Your task to perform on an android device: add a contact Image 0: 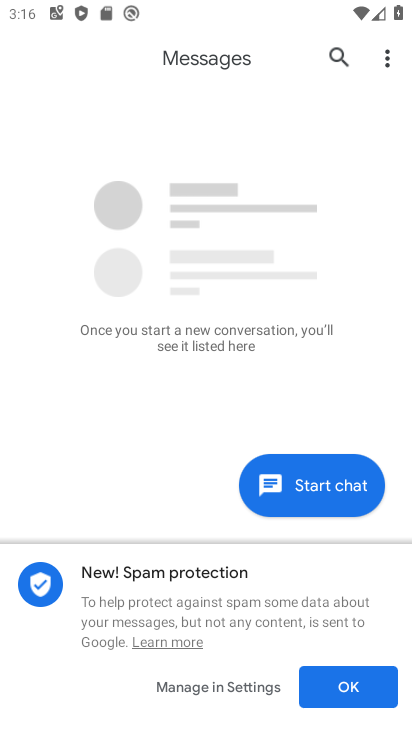
Step 0: press home button
Your task to perform on an android device: add a contact Image 1: 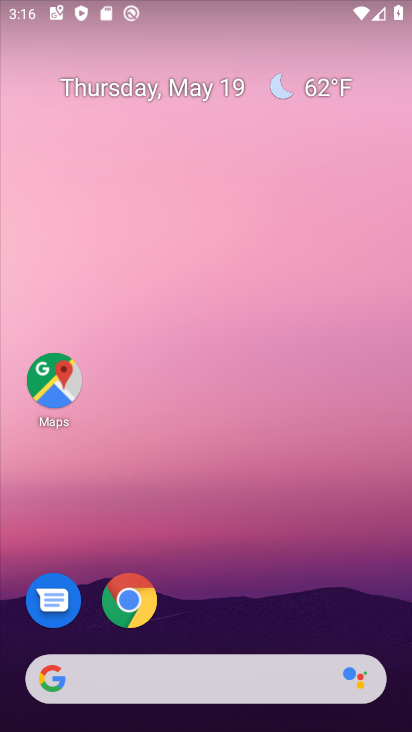
Step 1: drag from (71, 479) to (223, 128)
Your task to perform on an android device: add a contact Image 2: 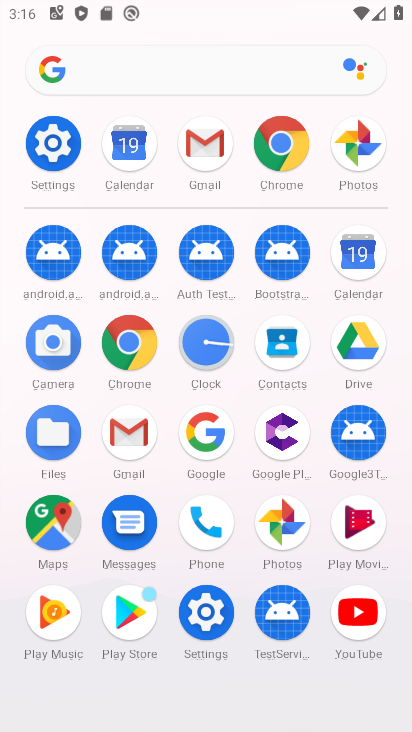
Step 2: click (209, 524)
Your task to perform on an android device: add a contact Image 3: 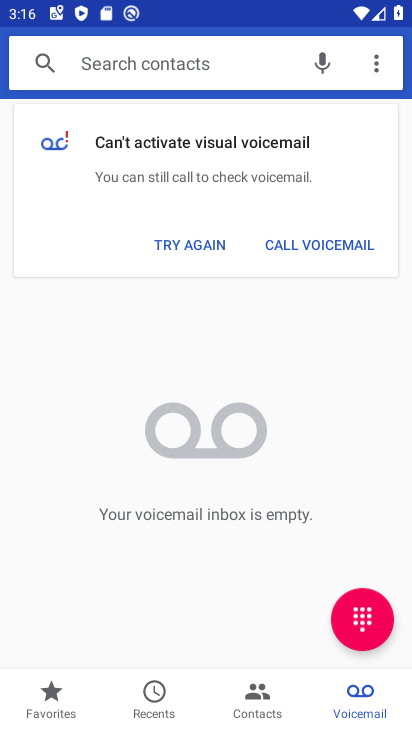
Step 3: click (245, 704)
Your task to perform on an android device: add a contact Image 4: 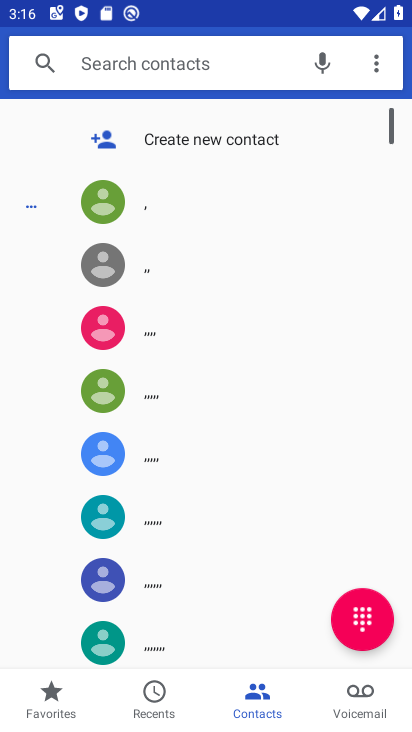
Step 4: click (163, 127)
Your task to perform on an android device: add a contact Image 5: 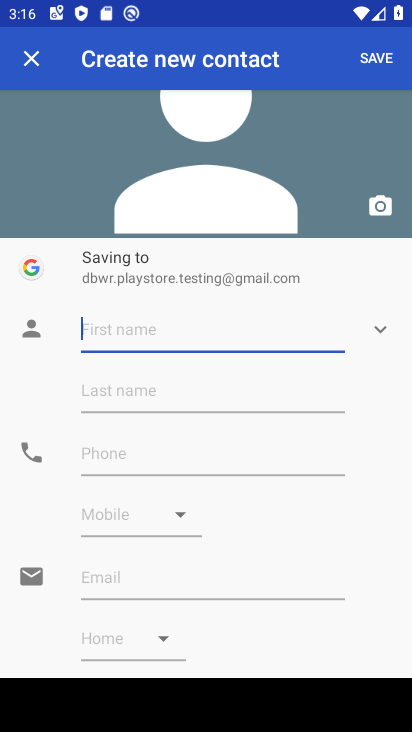
Step 5: click (200, 318)
Your task to perform on an android device: add a contact Image 6: 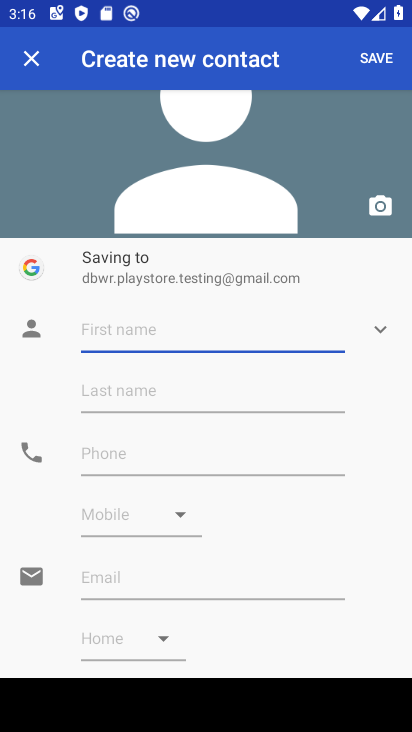
Step 6: type "ccvfdred"
Your task to perform on an android device: add a contact Image 7: 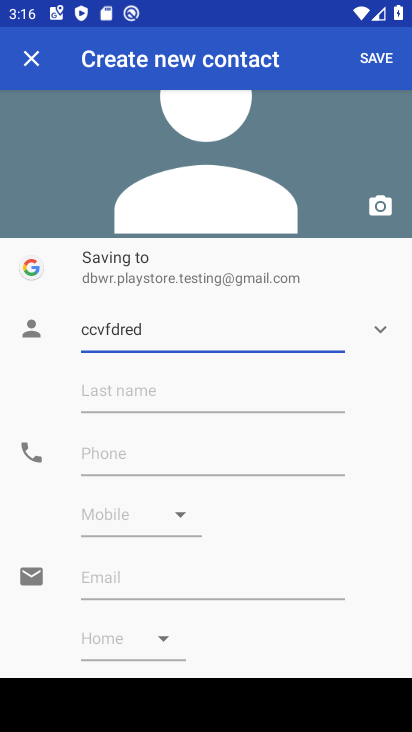
Step 7: click (377, 61)
Your task to perform on an android device: add a contact Image 8: 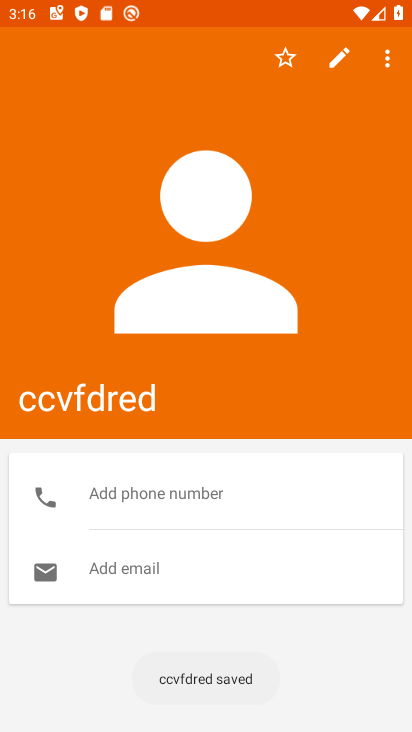
Step 8: task complete